Your task to perform on an android device: toggle translation in the chrome app Image 0: 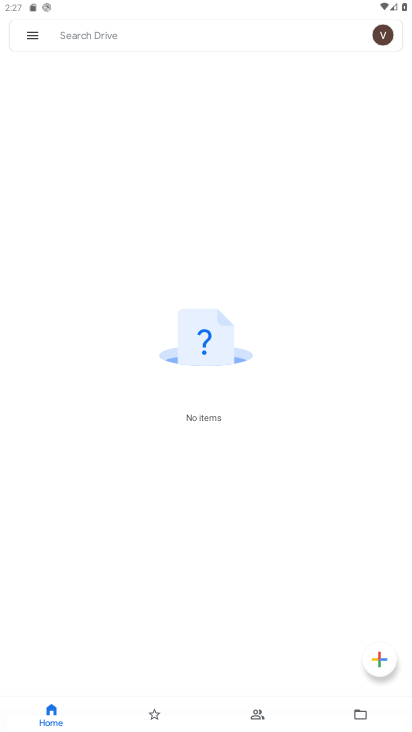
Step 0: press home button
Your task to perform on an android device: toggle translation in the chrome app Image 1: 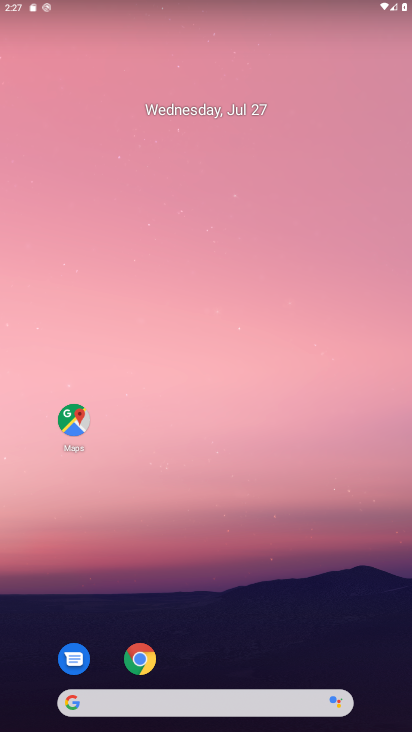
Step 1: drag from (246, 589) to (223, 118)
Your task to perform on an android device: toggle translation in the chrome app Image 2: 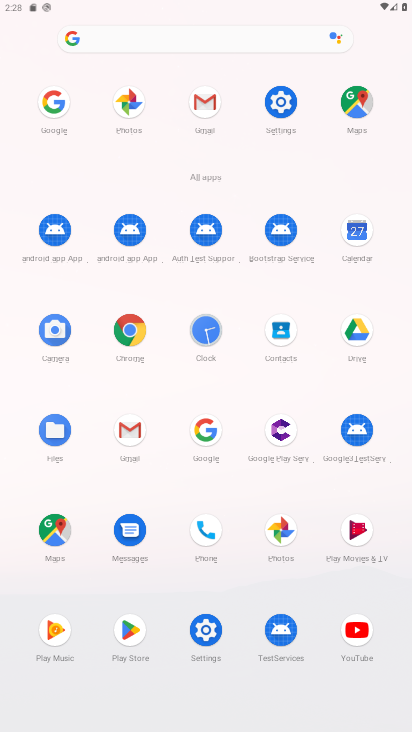
Step 2: click (280, 113)
Your task to perform on an android device: toggle translation in the chrome app Image 3: 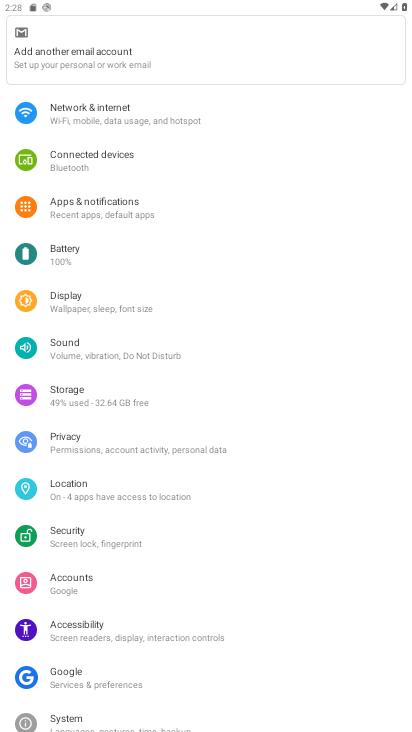
Step 3: press home button
Your task to perform on an android device: toggle translation in the chrome app Image 4: 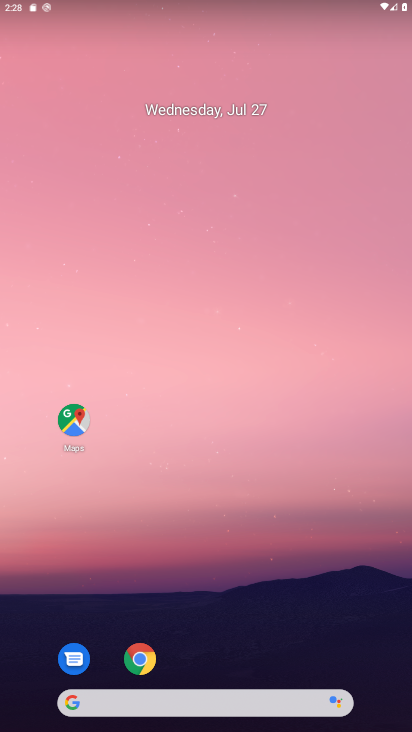
Step 4: drag from (228, 694) to (214, 112)
Your task to perform on an android device: toggle translation in the chrome app Image 5: 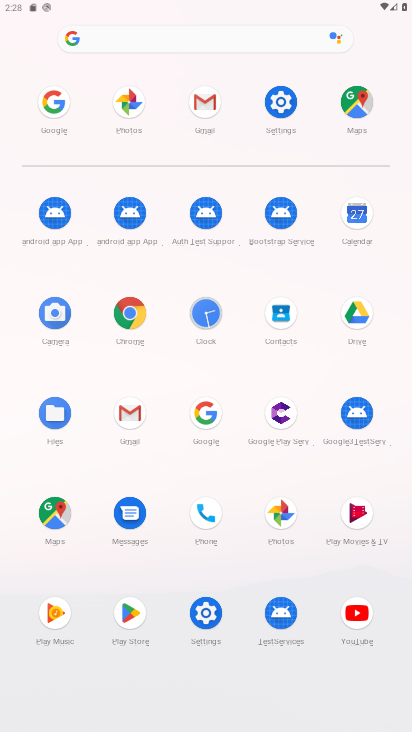
Step 5: click (124, 320)
Your task to perform on an android device: toggle translation in the chrome app Image 6: 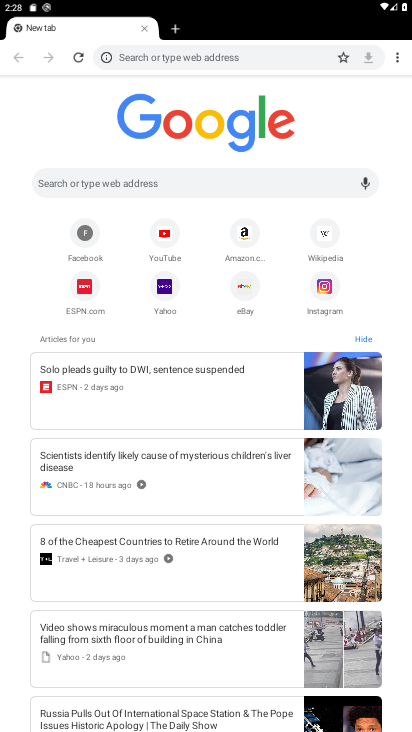
Step 6: drag from (397, 61) to (272, 264)
Your task to perform on an android device: toggle translation in the chrome app Image 7: 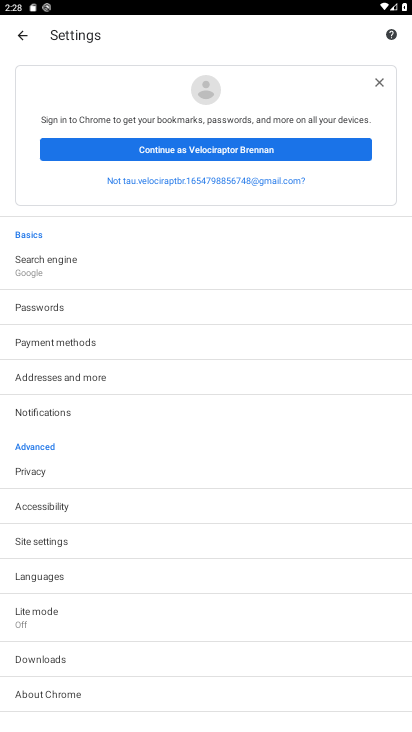
Step 7: click (55, 579)
Your task to perform on an android device: toggle translation in the chrome app Image 8: 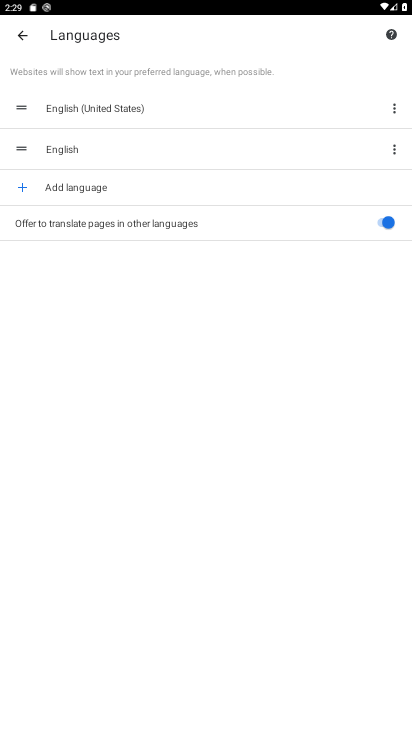
Step 8: click (383, 223)
Your task to perform on an android device: toggle translation in the chrome app Image 9: 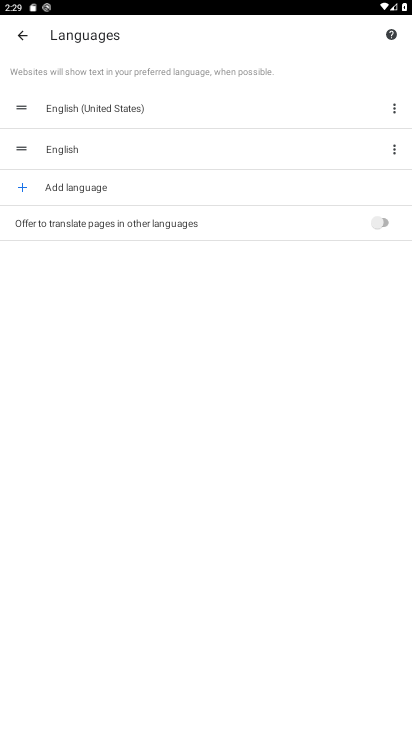
Step 9: task complete